Your task to perform on an android device: toggle improve location accuracy Image 0: 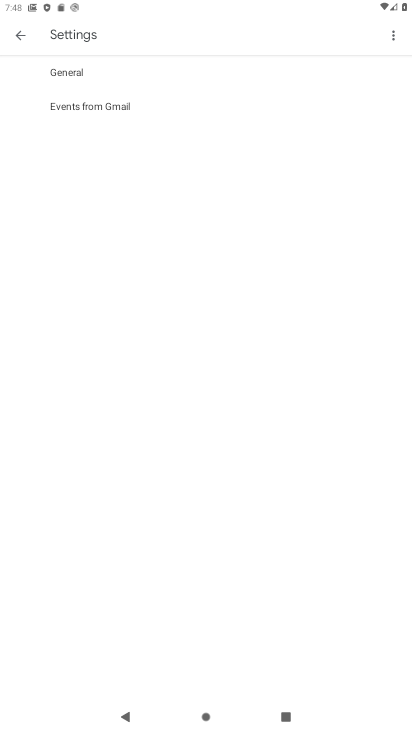
Step 0: press home button
Your task to perform on an android device: toggle improve location accuracy Image 1: 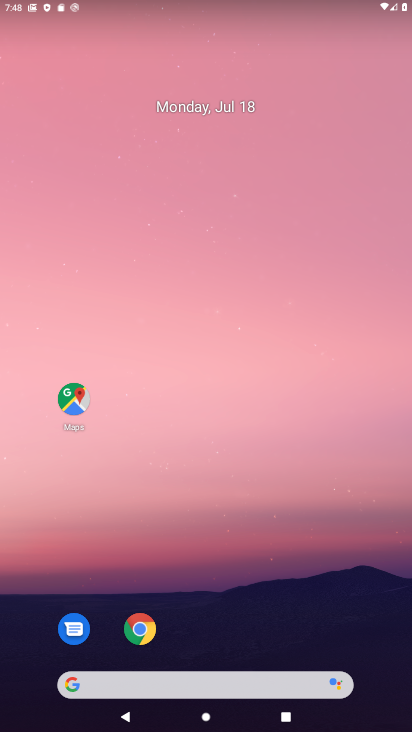
Step 1: drag from (340, 593) to (253, 92)
Your task to perform on an android device: toggle improve location accuracy Image 2: 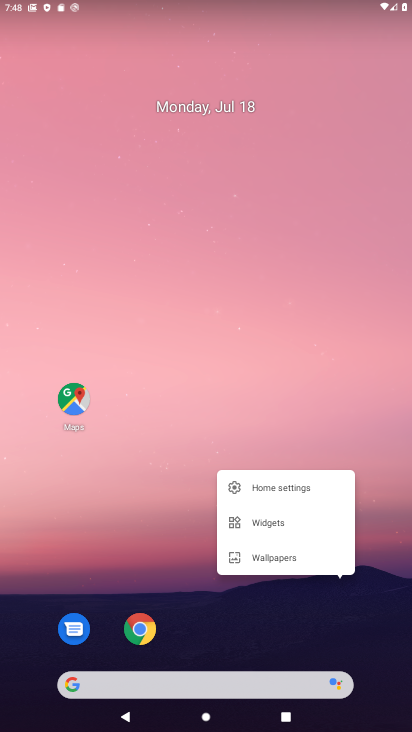
Step 2: click (357, 612)
Your task to perform on an android device: toggle improve location accuracy Image 3: 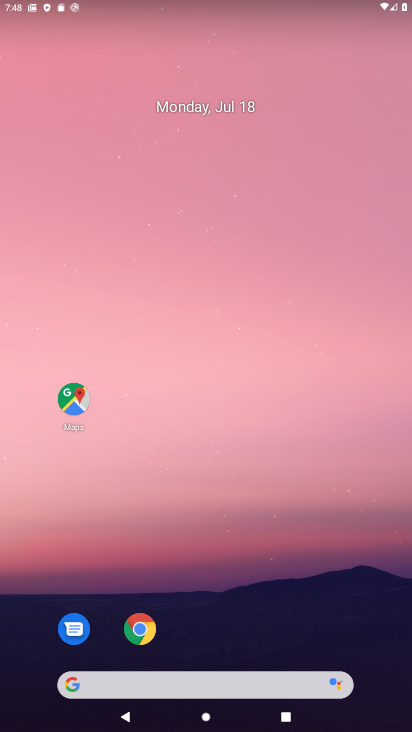
Step 3: drag from (255, 649) to (326, 1)
Your task to perform on an android device: toggle improve location accuracy Image 4: 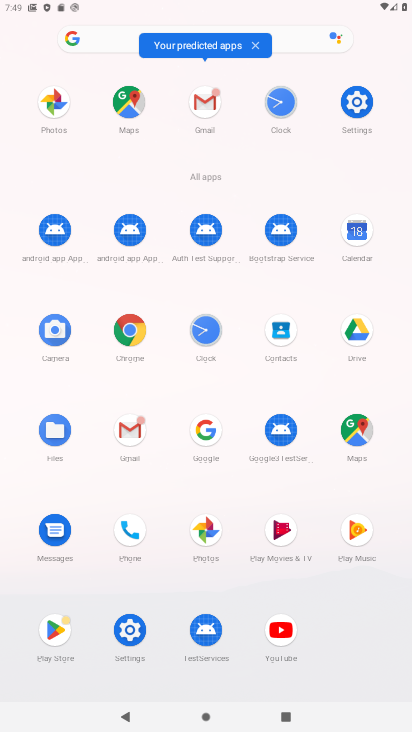
Step 4: click (124, 641)
Your task to perform on an android device: toggle improve location accuracy Image 5: 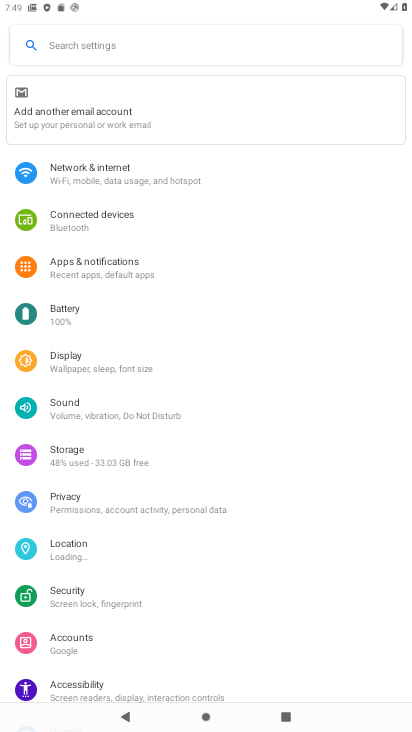
Step 5: click (96, 551)
Your task to perform on an android device: toggle improve location accuracy Image 6: 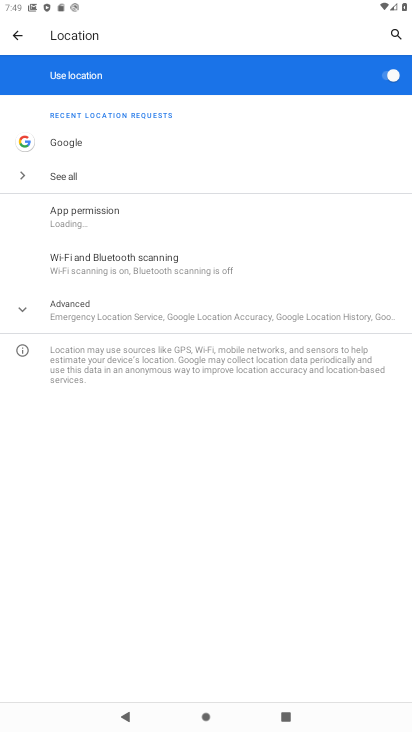
Step 6: click (83, 315)
Your task to perform on an android device: toggle improve location accuracy Image 7: 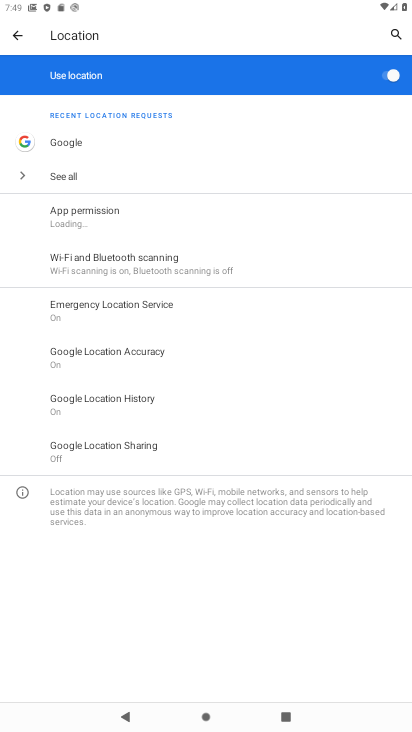
Step 7: click (101, 358)
Your task to perform on an android device: toggle improve location accuracy Image 8: 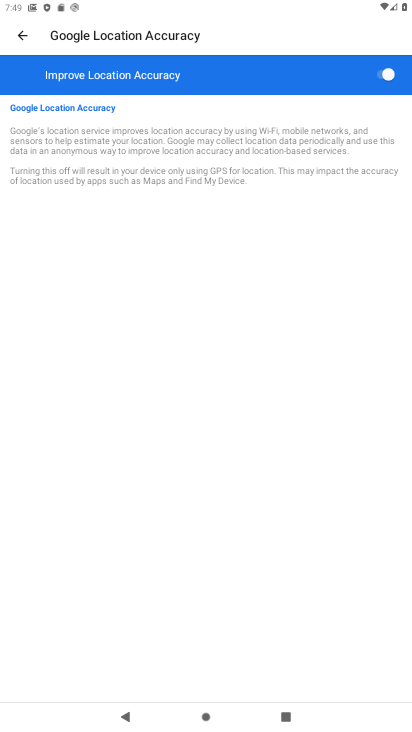
Step 8: click (383, 80)
Your task to perform on an android device: toggle improve location accuracy Image 9: 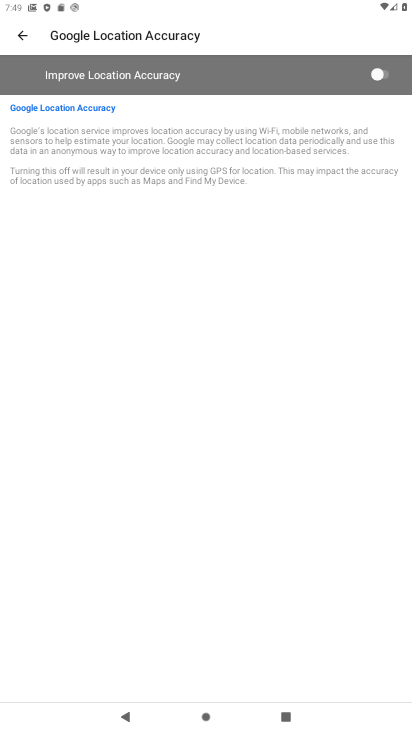
Step 9: task complete